Your task to perform on an android device: Search for vegetarian restaurants on Maps Image 0: 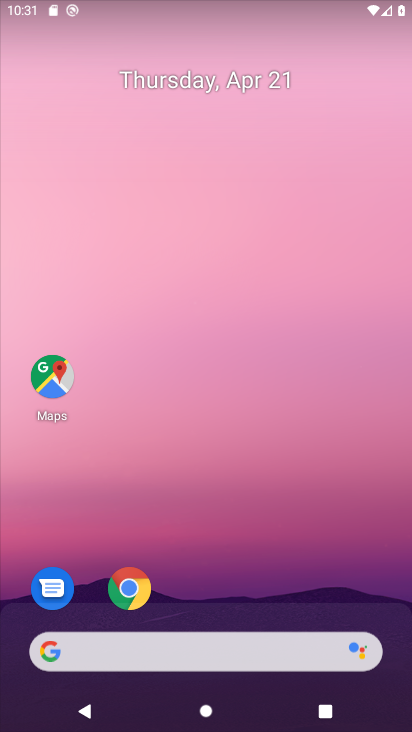
Step 0: click (47, 368)
Your task to perform on an android device: Search for vegetarian restaurants on Maps Image 1: 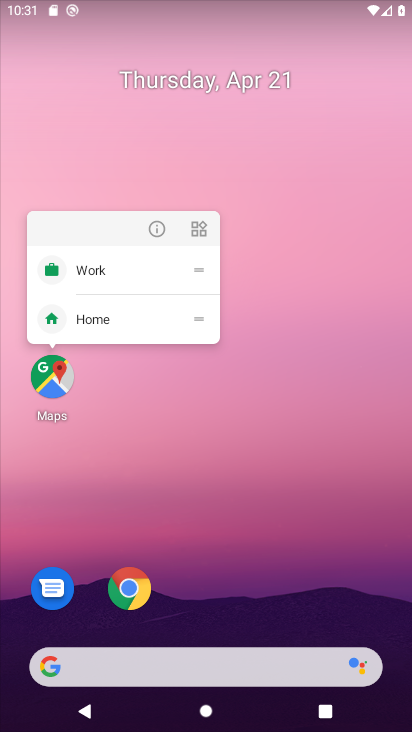
Step 1: click (47, 368)
Your task to perform on an android device: Search for vegetarian restaurants on Maps Image 2: 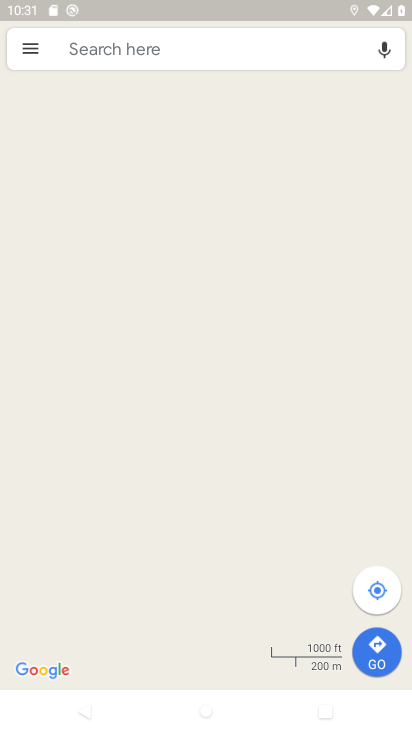
Step 2: click (123, 47)
Your task to perform on an android device: Search for vegetarian restaurants on Maps Image 3: 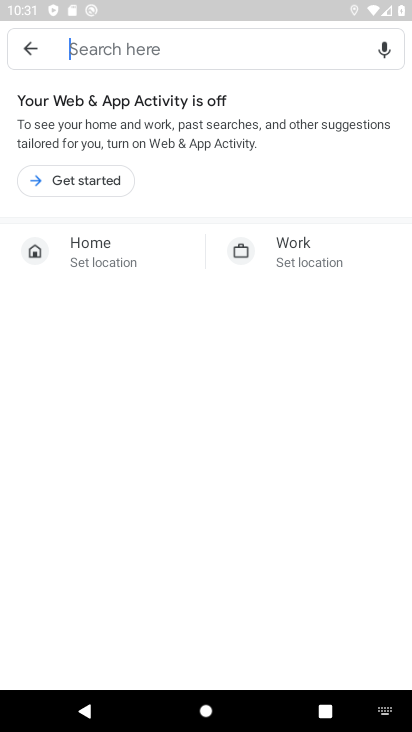
Step 3: type "vegetarian restaurants"
Your task to perform on an android device: Search for vegetarian restaurants on Maps Image 4: 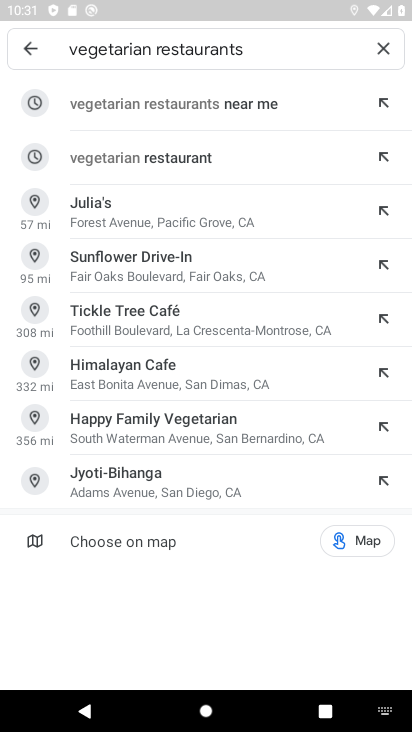
Step 4: click (101, 156)
Your task to perform on an android device: Search for vegetarian restaurants on Maps Image 5: 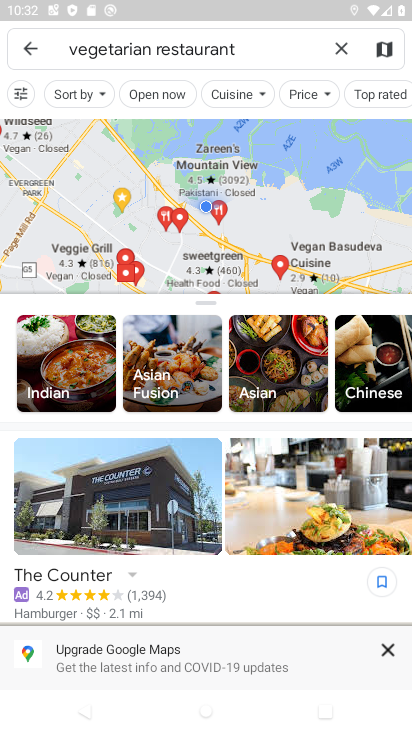
Step 5: task complete